Your task to perform on an android device: turn off location Image 0: 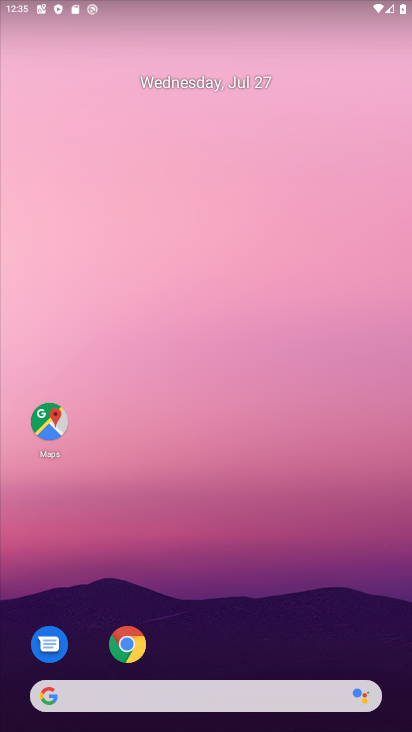
Step 0: press home button
Your task to perform on an android device: turn off location Image 1: 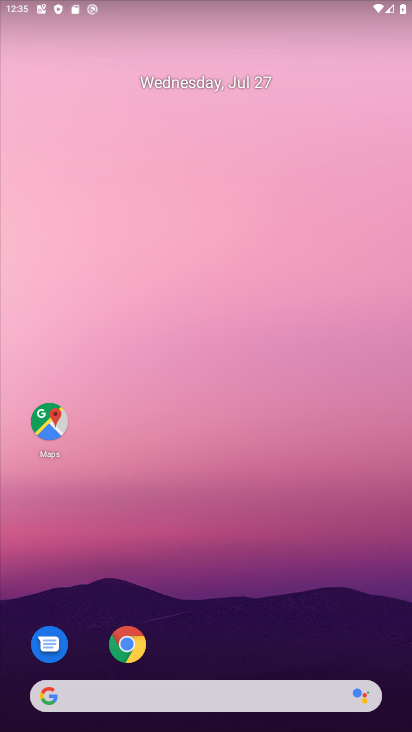
Step 1: drag from (254, 592) to (284, 54)
Your task to perform on an android device: turn off location Image 2: 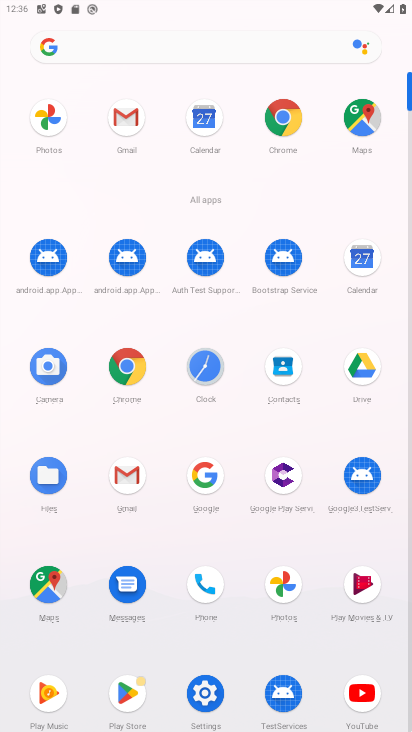
Step 2: click (200, 708)
Your task to perform on an android device: turn off location Image 3: 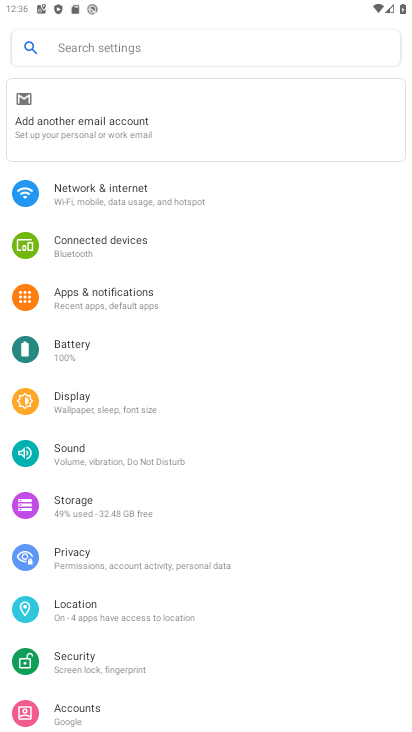
Step 3: click (74, 614)
Your task to perform on an android device: turn off location Image 4: 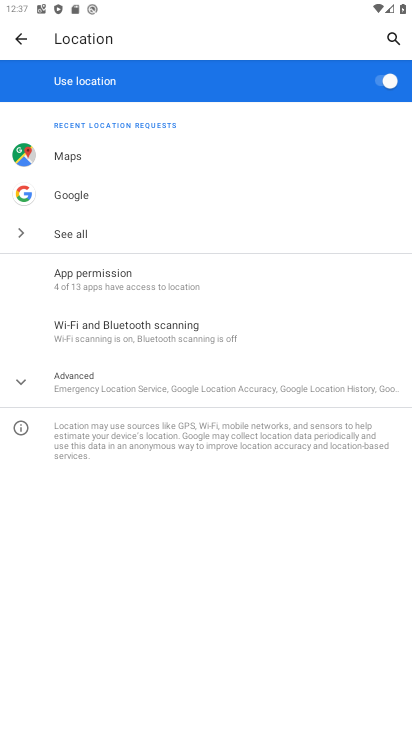
Step 4: click (320, 89)
Your task to perform on an android device: turn off location Image 5: 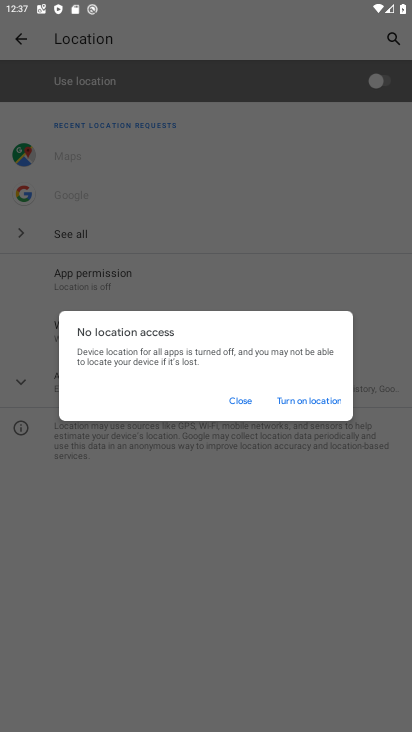
Step 5: click (240, 389)
Your task to perform on an android device: turn off location Image 6: 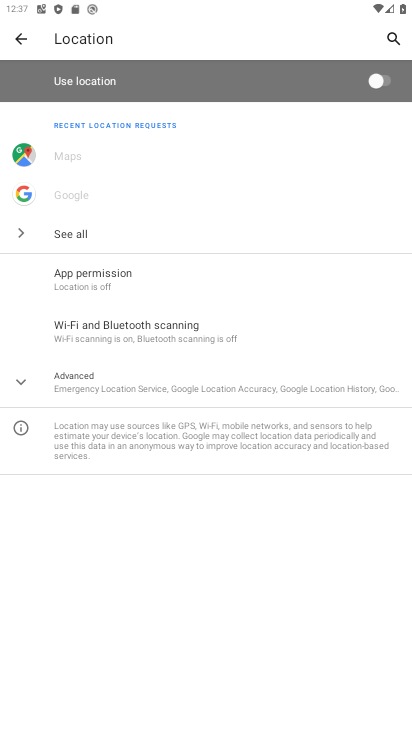
Step 6: click (240, 391)
Your task to perform on an android device: turn off location Image 7: 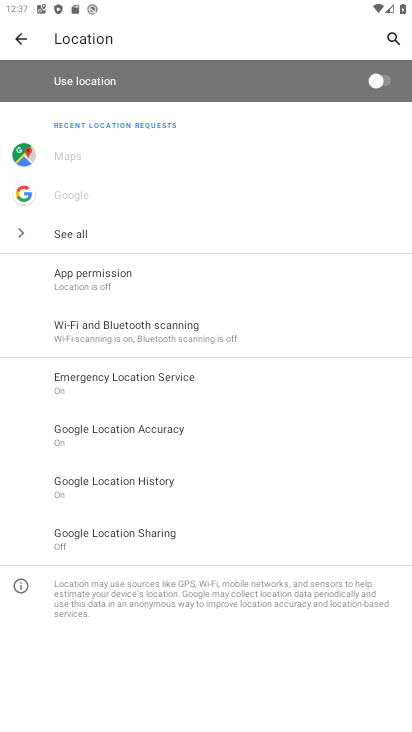
Step 7: task complete